Your task to perform on an android device: Search for Italian restaurants on Maps Image 0: 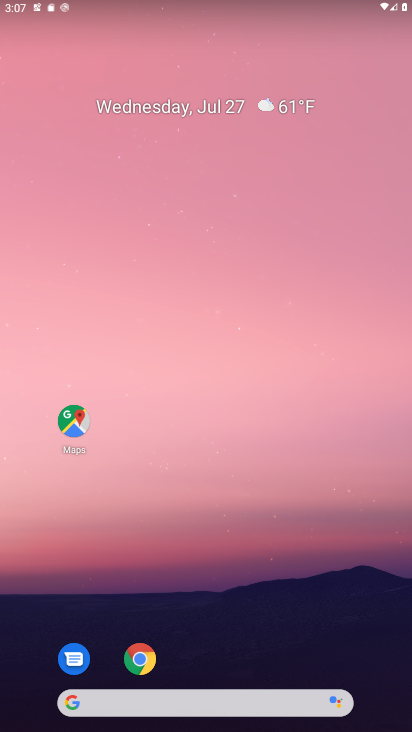
Step 0: click (75, 429)
Your task to perform on an android device: Search for Italian restaurants on Maps Image 1: 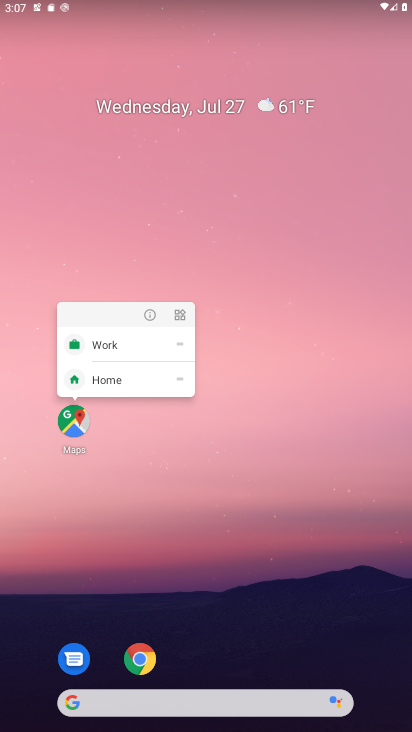
Step 1: click (67, 427)
Your task to perform on an android device: Search for Italian restaurants on Maps Image 2: 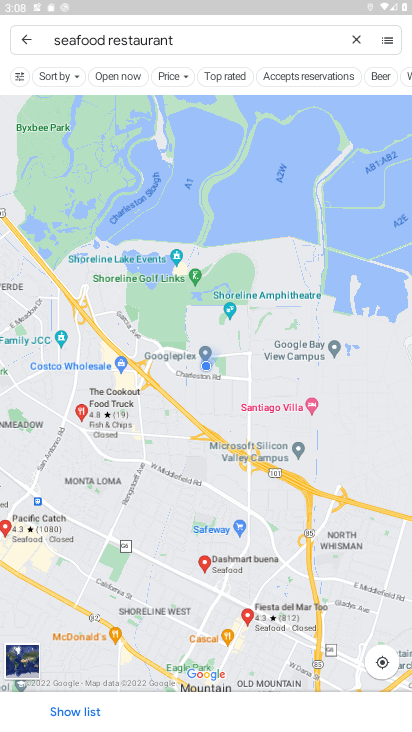
Step 2: click (357, 37)
Your task to perform on an android device: Search for Italian restaurants on Maps Image 3: 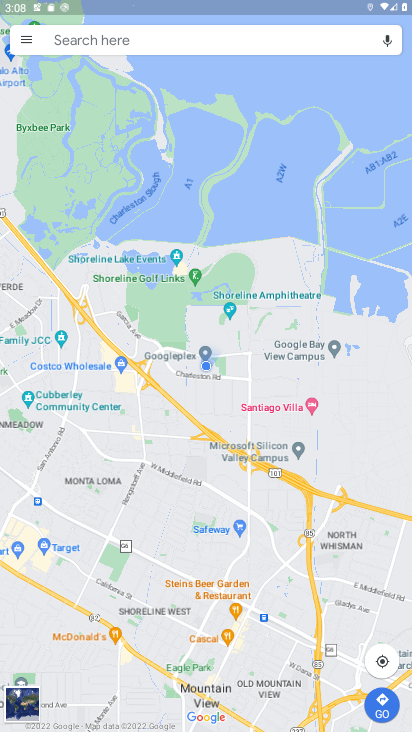
Step 3: click (213, 31)
Your task to perform on an android device: Search for Italian restaurants on Maps Image 4: 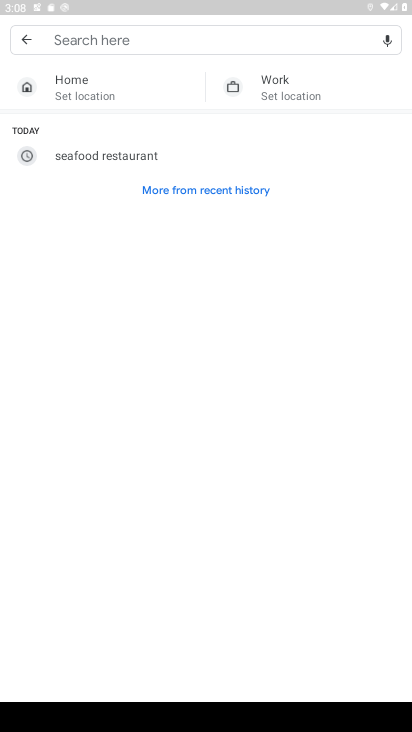
Step 4: type "italian restauratns"
Your task to perform on an android device: Search for Italian restaurants on Maps Image 5: 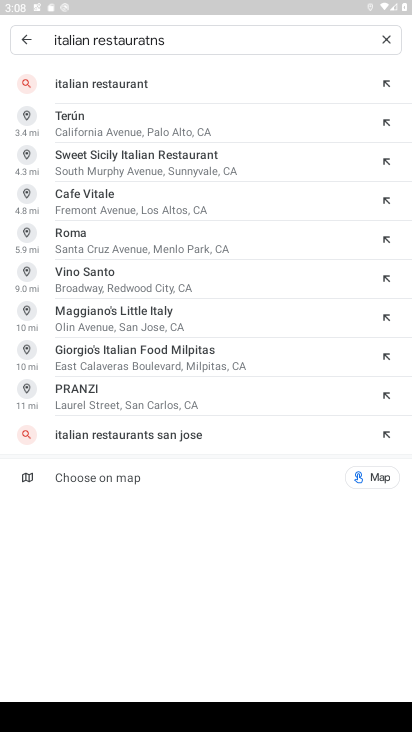
Step 5: click (114, 84)
Your task to perform on an android device: Search for Italian restaurants on Maps Image 6: 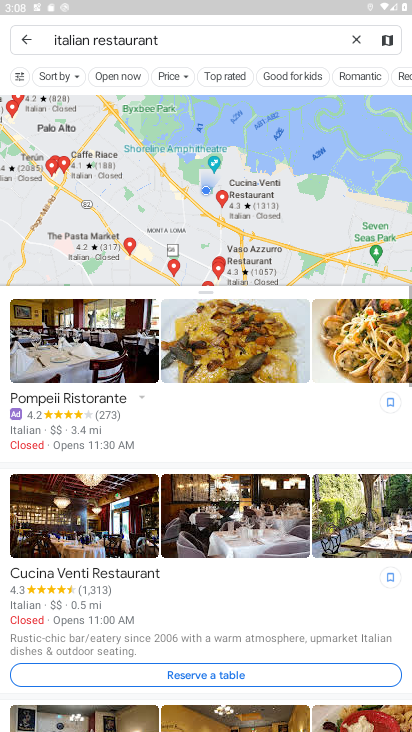
Step 6: task complete